Your task to perform on an android device: Open calendar and show me the second week of next month Image 0: 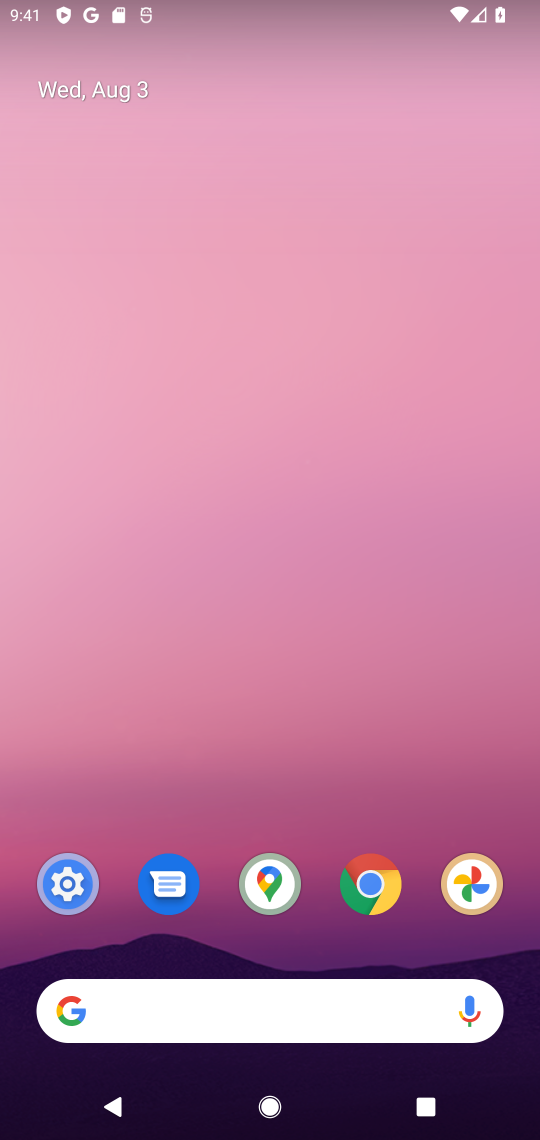
Step 0: press home button
Your task to perform on an android device: Open calendar and show me the second week of next month Image 1: 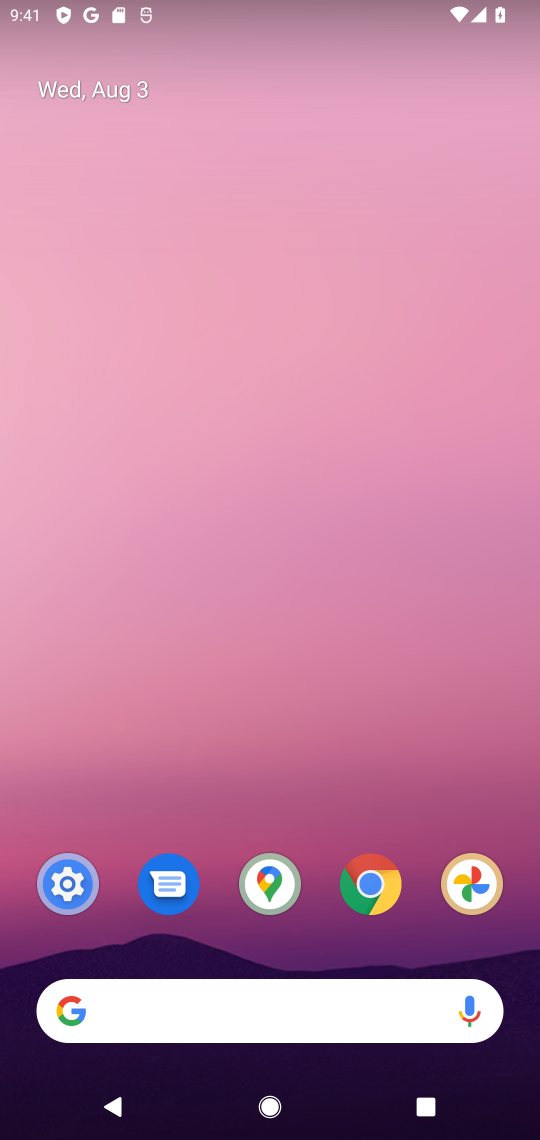
Step 1: drag from (210, 939) to (306, 141)
Your task to perform on an android device: Open calendar and show me the second week of next month Image 2: 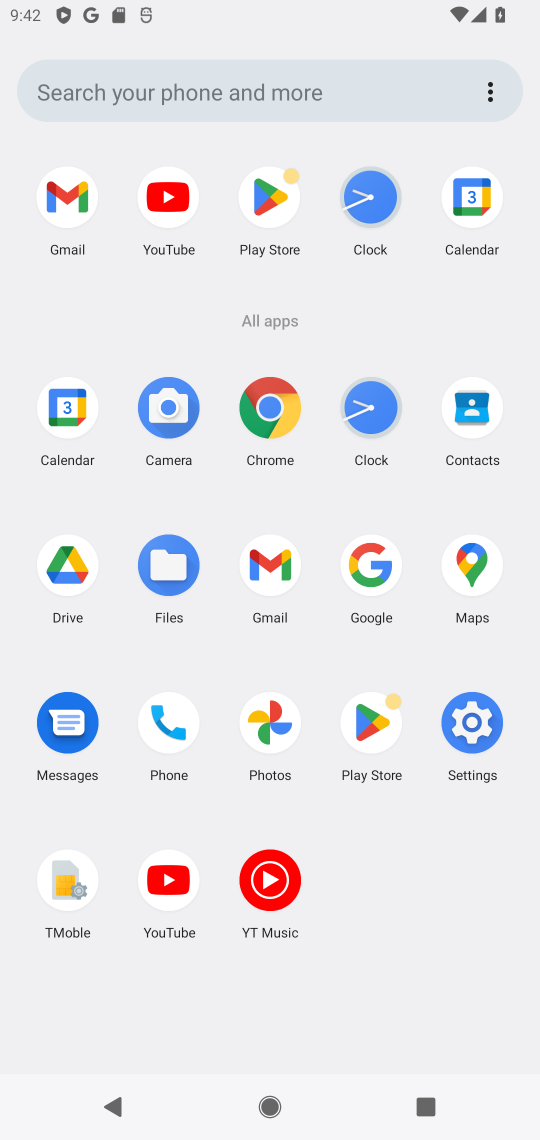
Step 2: click (472, 193)
Your task to perform on an android device: Open calendar and show me the second week of next month Image 3: 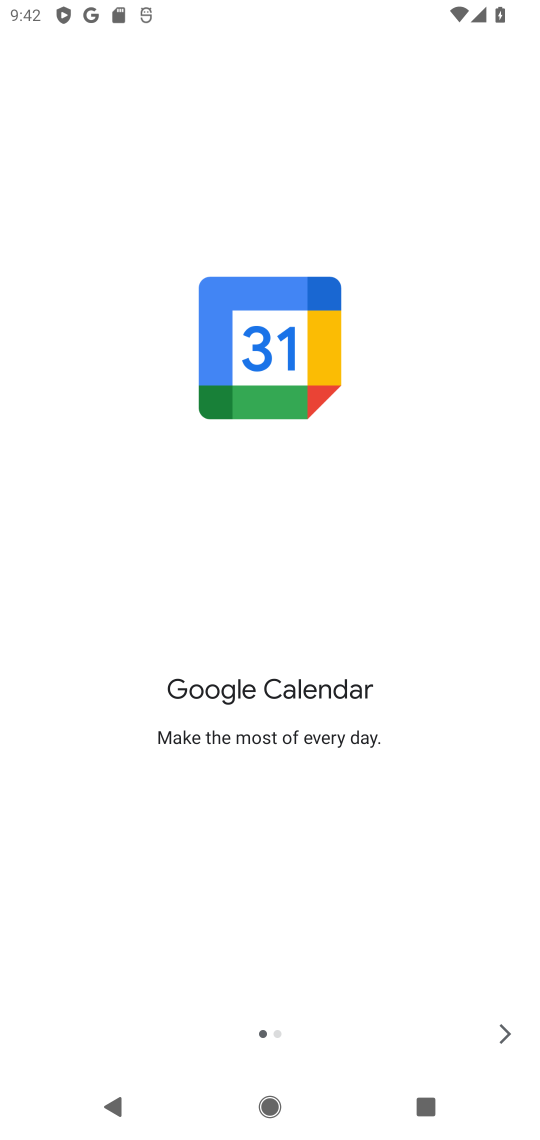
Step 3: click (499, 1037)
Your task to perform on an android device: Open calendar and show me the second week of next month Image 4: 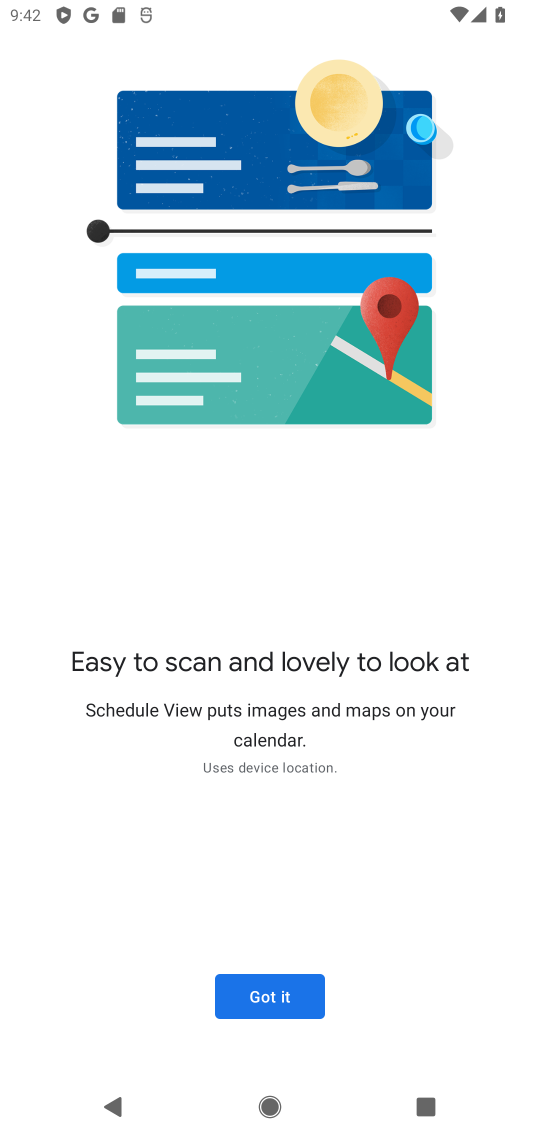
Step 4: click (234, 986)
Your task to perform on an android device: Open calendar and show me the second week of next month Image 5: 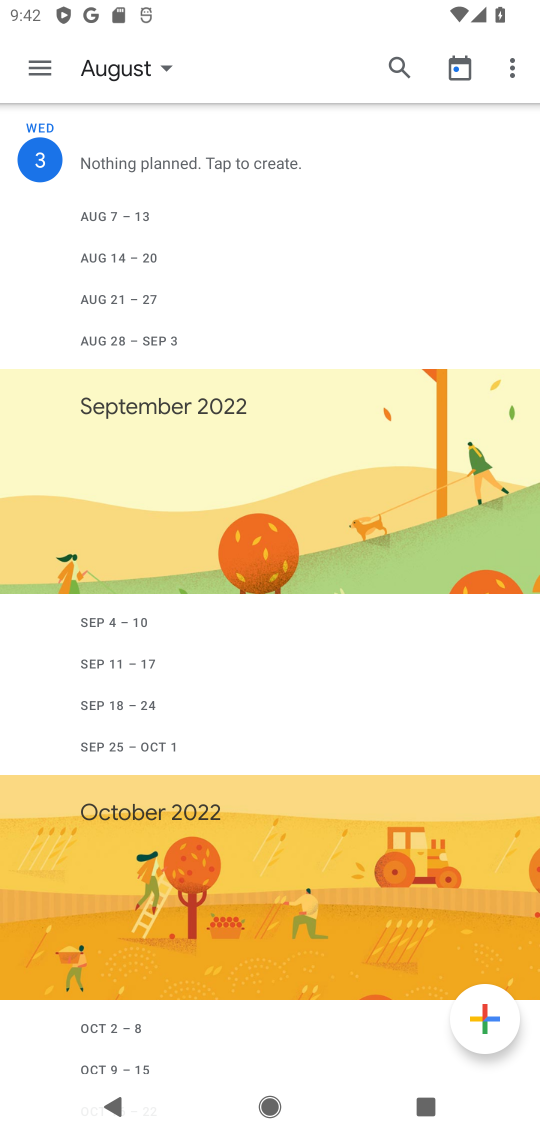
Step 5: click (164, 65)
Your task to perform on an android device: Open calendar and show me the second week of next month Image 6: 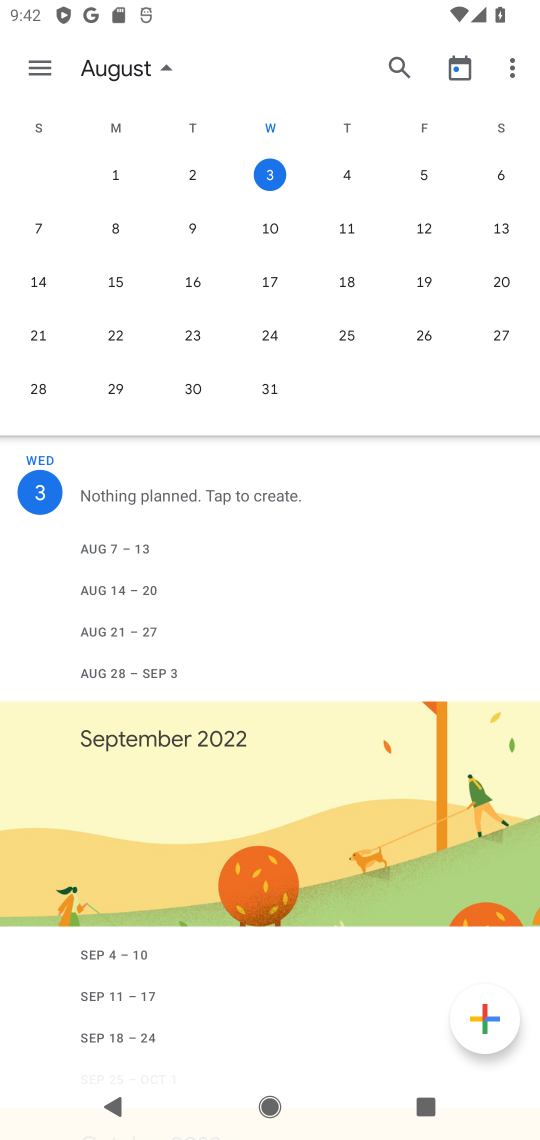
Step 6: drag from (455, 206) to (46, 221)
Your task to perform on an android device: Open calendar and show me the second week of next month Image 7: 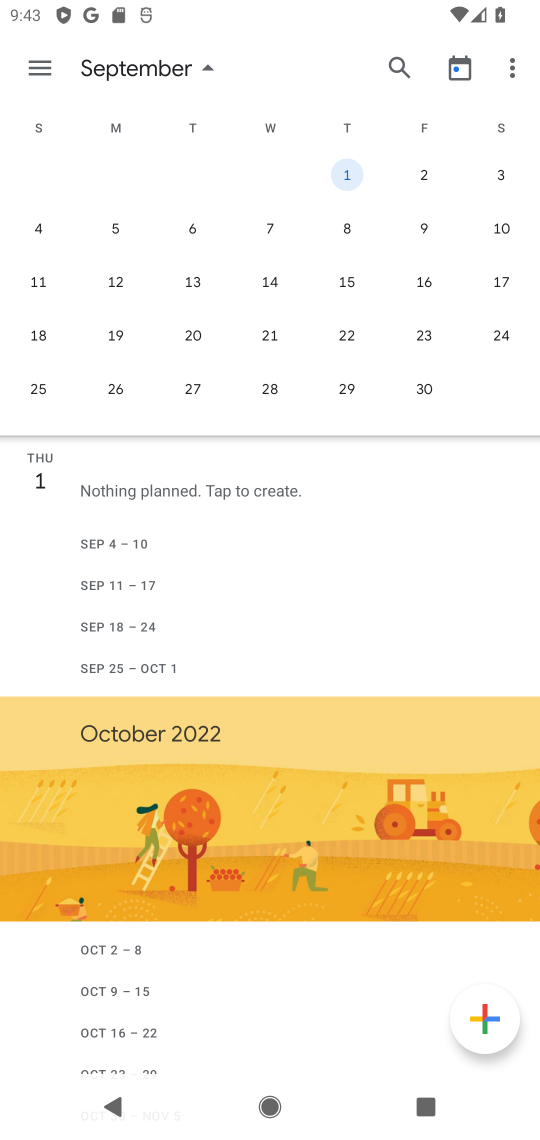
Step 7: click (38, 283)
Your task to perform on an android device: Open calendar and show me the second week of next month Image 8: 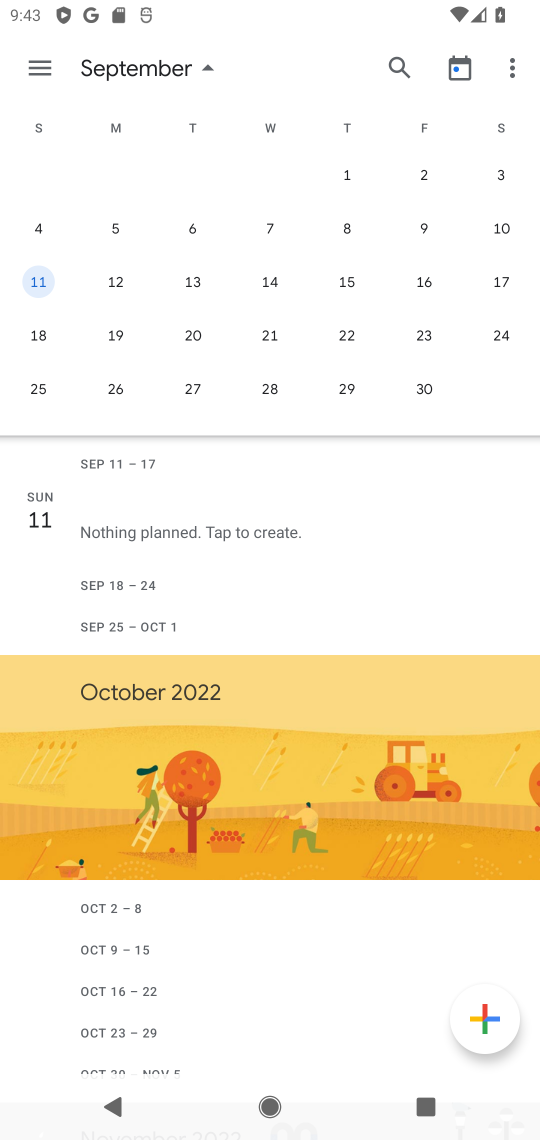
Step 8: click (118, 280)
Your task to perform on an android device: Open calendar and show me the second week of next month Image 9: 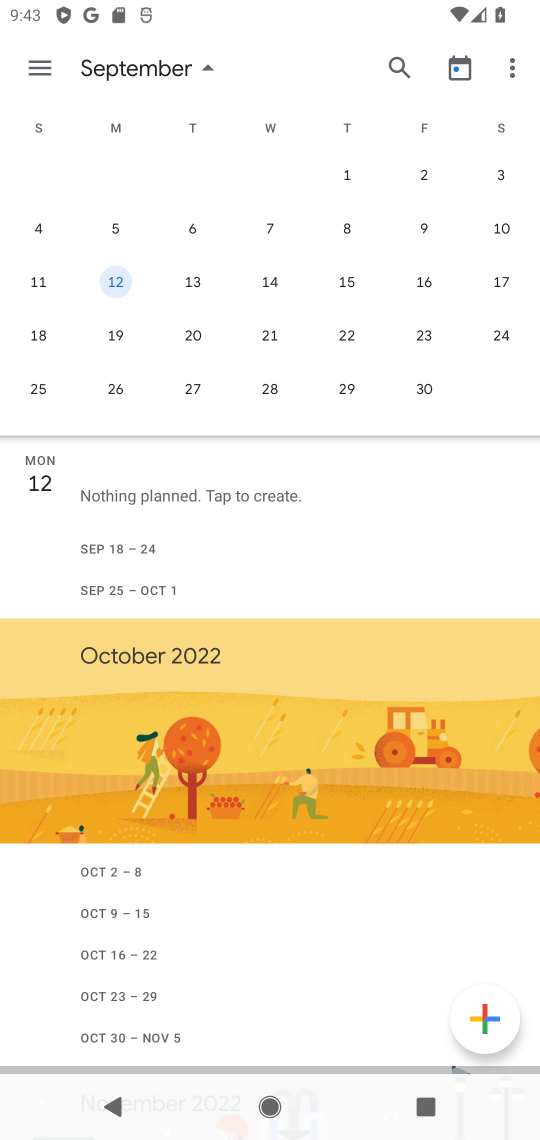
Step 9: click (196, 284)
Your task to perform on an android device: Open calendar and show me the second week of next month Image 10: 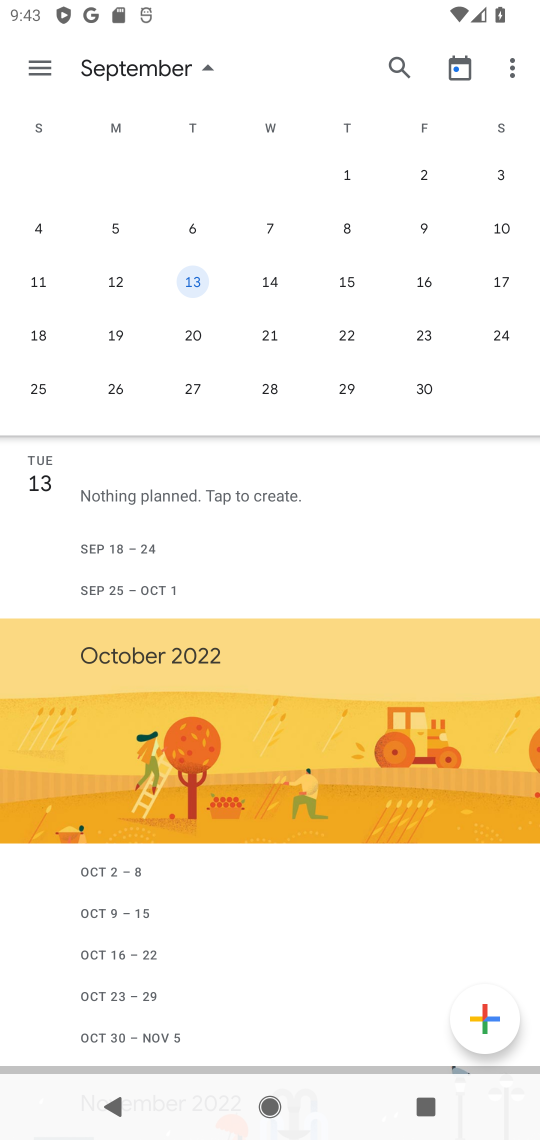
Step 10: click (263, 287)
Your task to perform on an android device: Open calendar and show me the second week of next month Image 11: 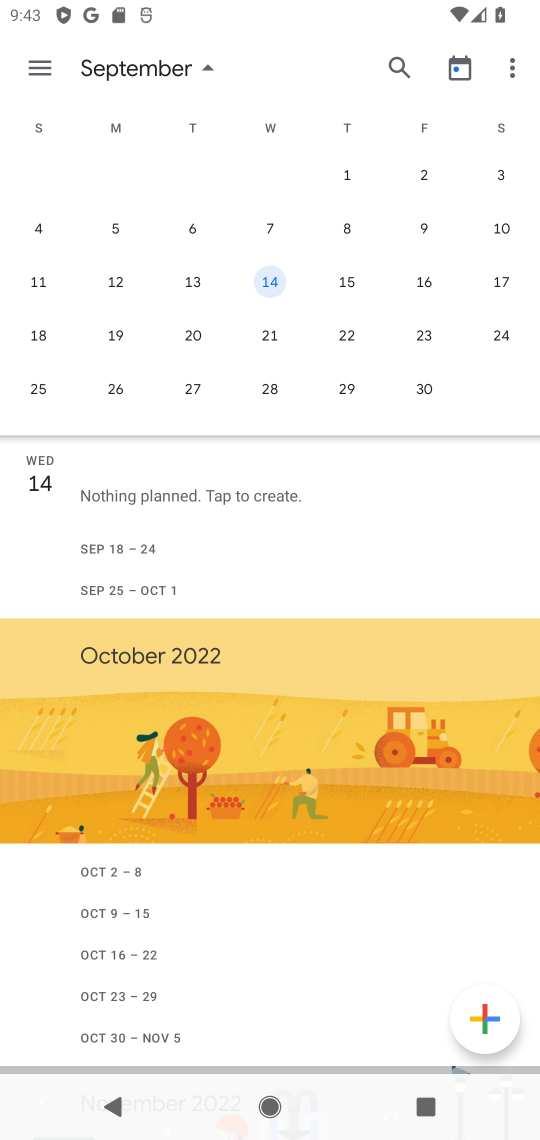
Step 11: click (336, 285)
Your task to perform on an android device: Open calendar and show me the second week of next month Image 12: 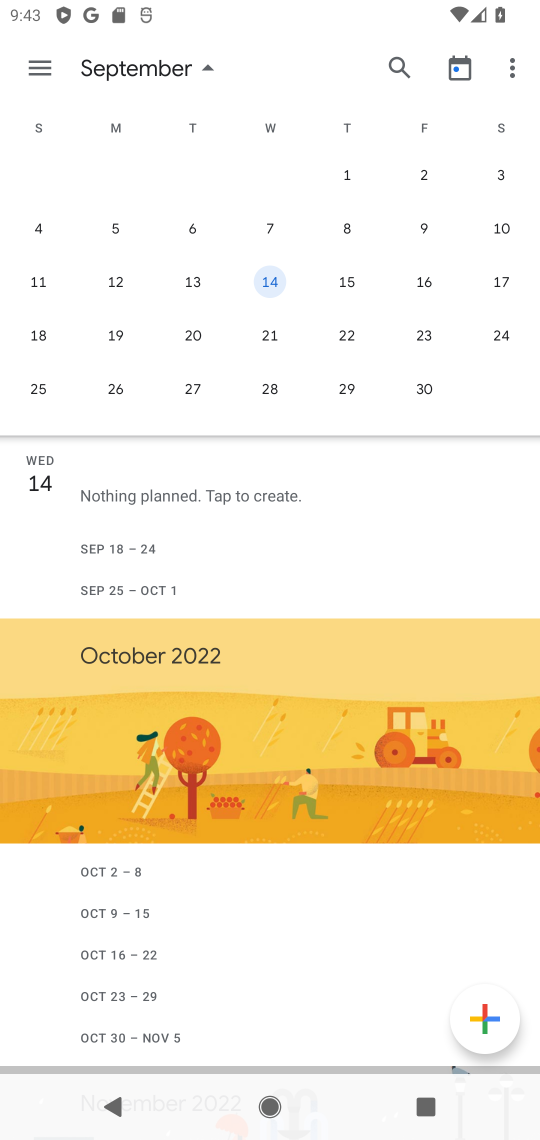
Step 12: click (348, 284)
Your task to perform on an android device: Open calendar and show me the second week of next month Image 13: 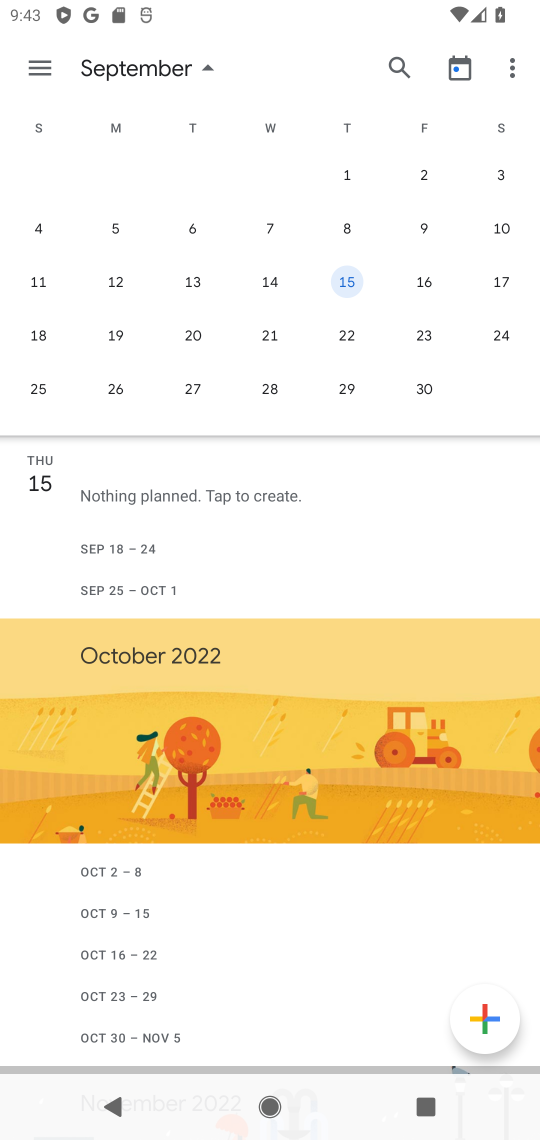
Step 13: click (421, 280)
Your task to perform on an android device: Open calendar and show me the second week of next month Image 14: 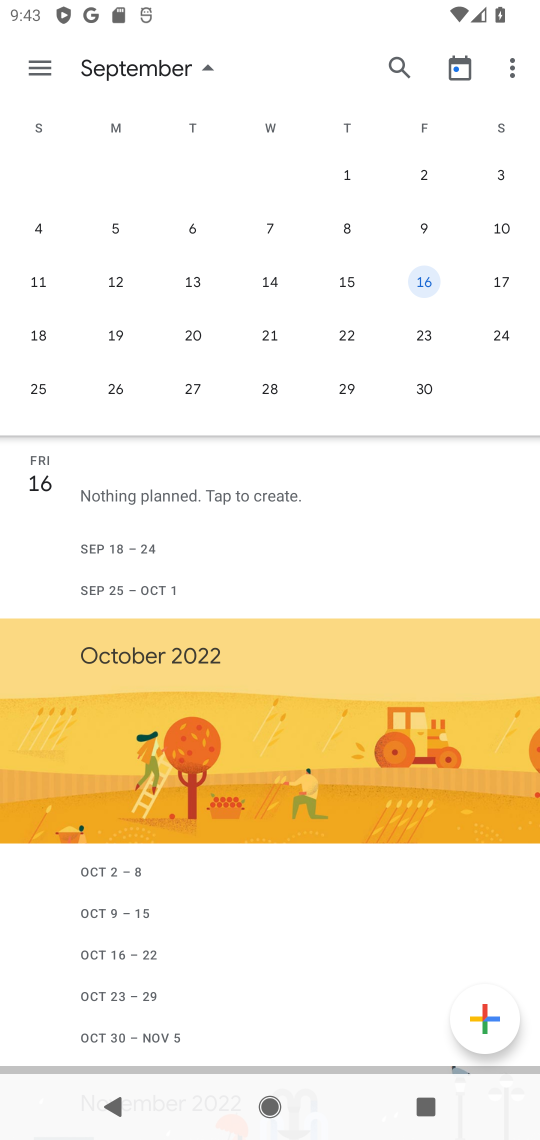
Step 14: click (513, 278)
Your task to perform on an android device: Open calendar and show me the second week of next month Image 15: 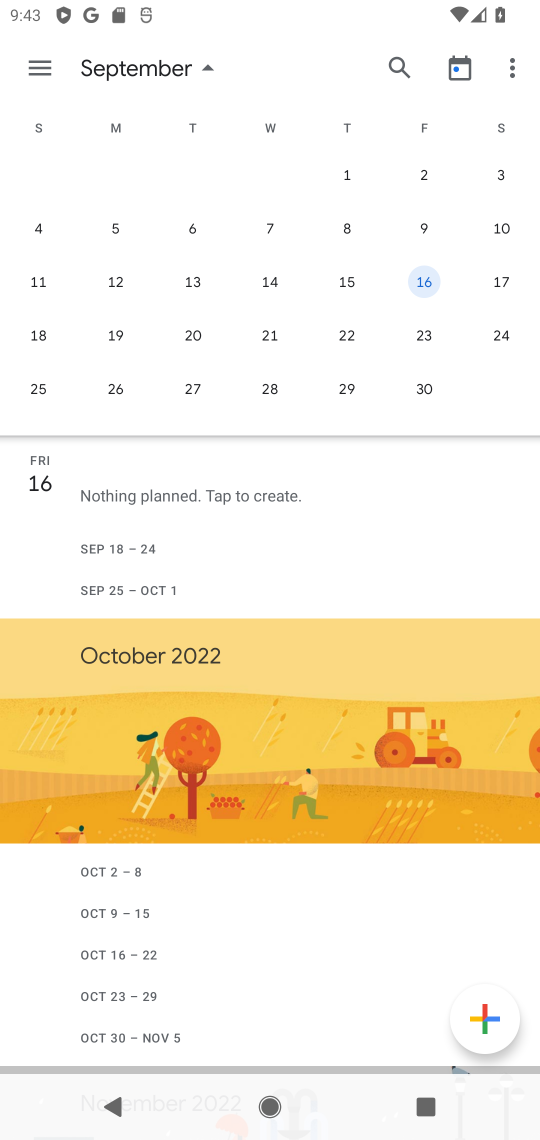
Step 15: click (497, 281)
Your task to perform on an android device: Open calendar and show me the second week of next month Image 16: 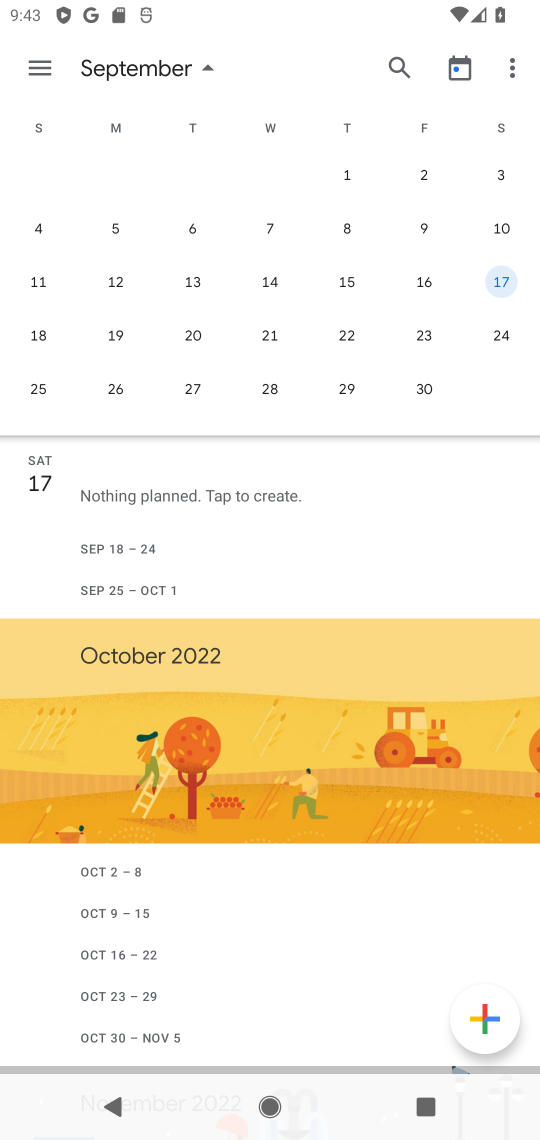
Step 16: task complete